Your task to perform on an android device: turn notification dots on Image 0: 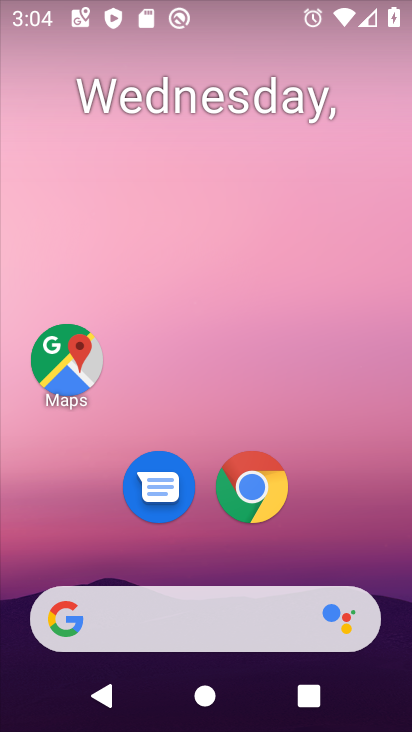
Step 0: drag from (350, 556) to (360, 277)
Your task to perform on an android device: turn notification dots on Image 1: 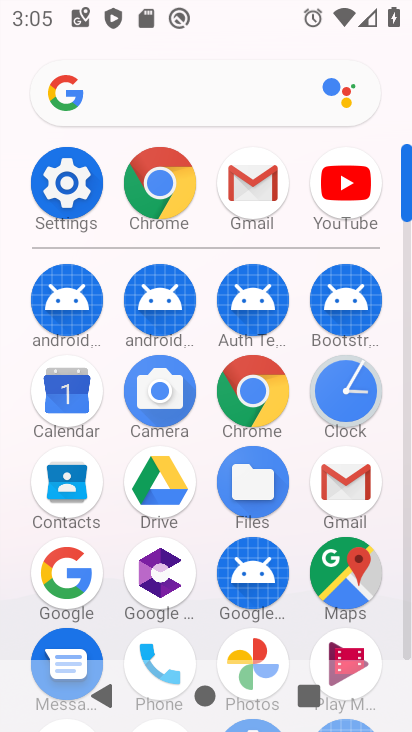
Step 1: click (80, 205)
Your task to perform on an android device: turn notification dots on Image 2: 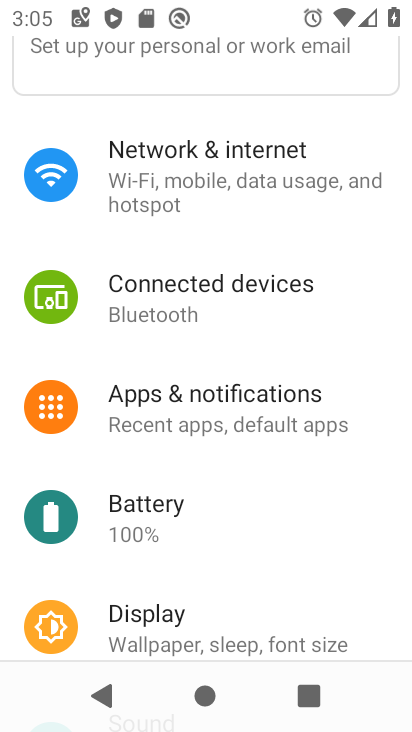
Step 2: drag from (352, 284) to (366, 499)
Your task to perform on an android device: turn notification dots on Image 3: 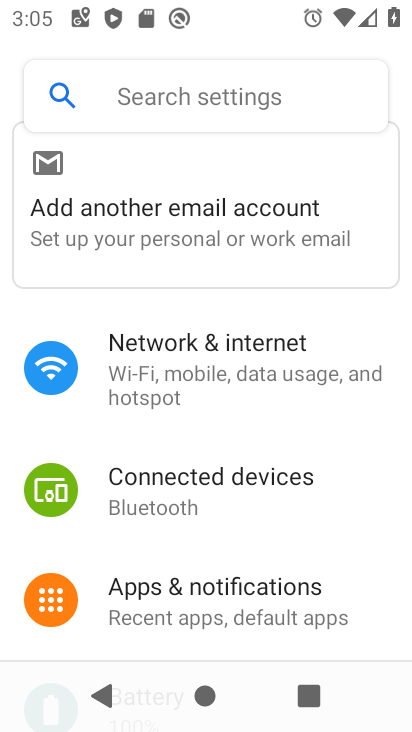
Step 3: click (310, 589)
Your task to perform on an android device: turn notification dots on Image 4: 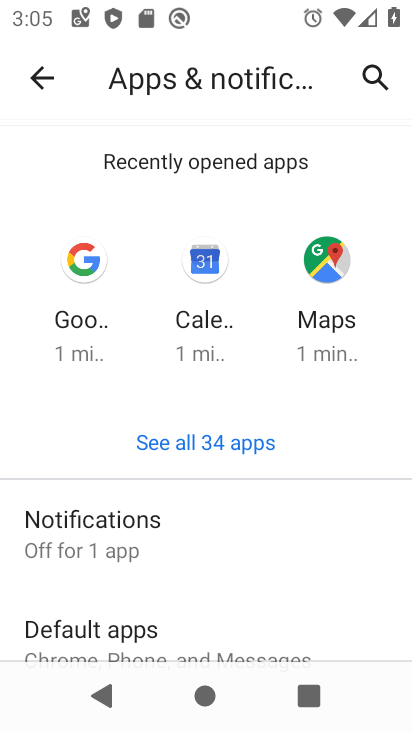
Step 4: click (169, 545)
Your task to perform on an android device: turn notification dots on Image 5: 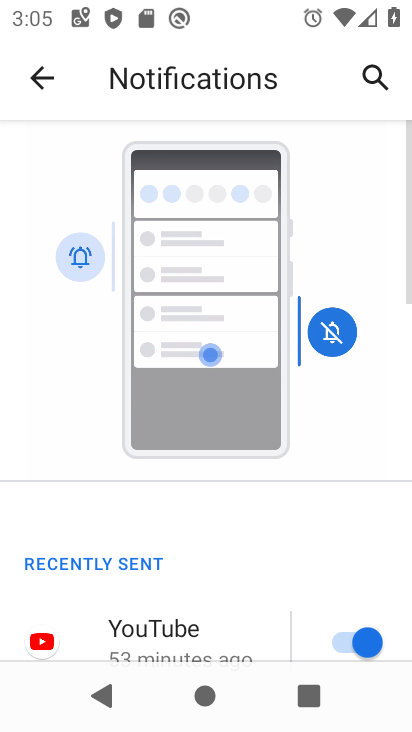
Step 5: drag from (277, 550) to (304, 480)
Your task to perform on an android device: turn notification dots on Image 6: 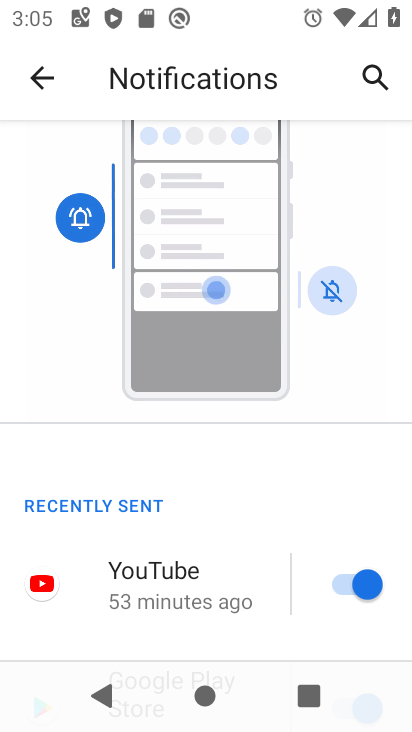
Step 6: drag from (314, 529) to (312, 434)
Your task to perform on an android device: turn notification dots on Image 7: 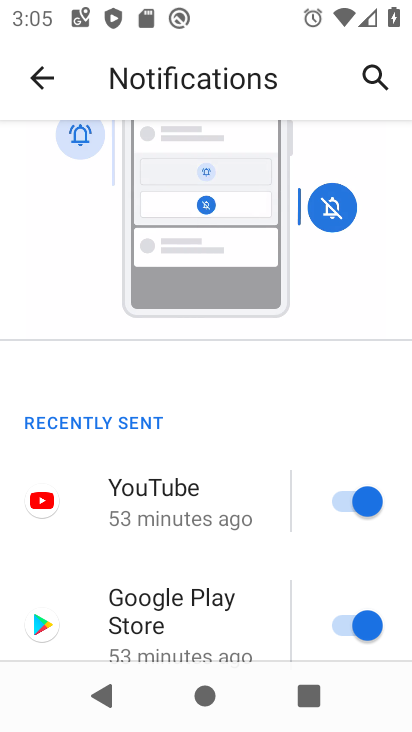
Step 7: drag from (287, 546) to (302, 426)
Your task to perform on an android device: turn notification dots on Image 8: 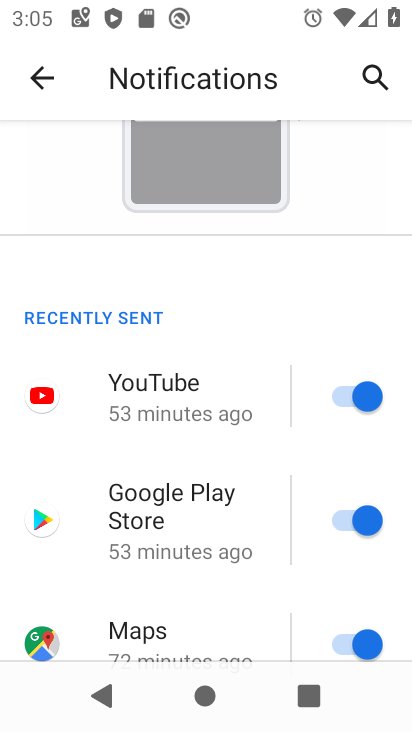
Step 8: drag from (294, 550) to (303, 450)
Your task to perform on an android device: turn notification dots on Image 9: 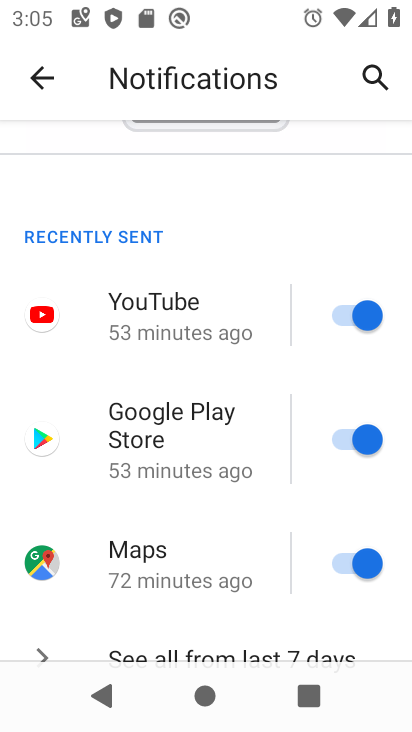
Step 9: drag from (311, 525) to (298, 419)
Your task to perform on an android device: turn notification dots on Image 10: 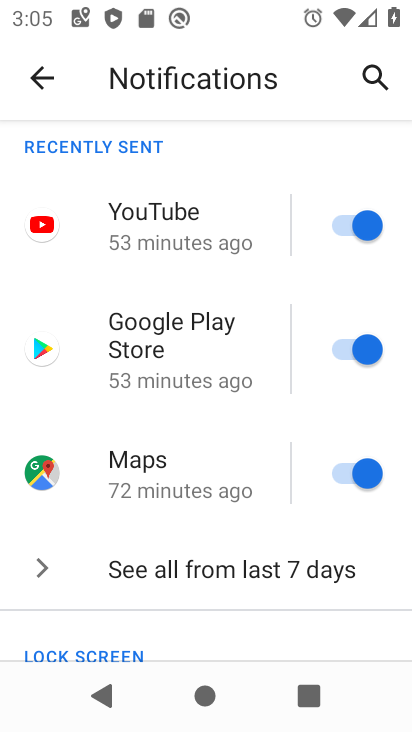
Step 10: drag from (308, 497) to (307, 378)
Your task to perform on an android device: turn notification dots on Image 11: 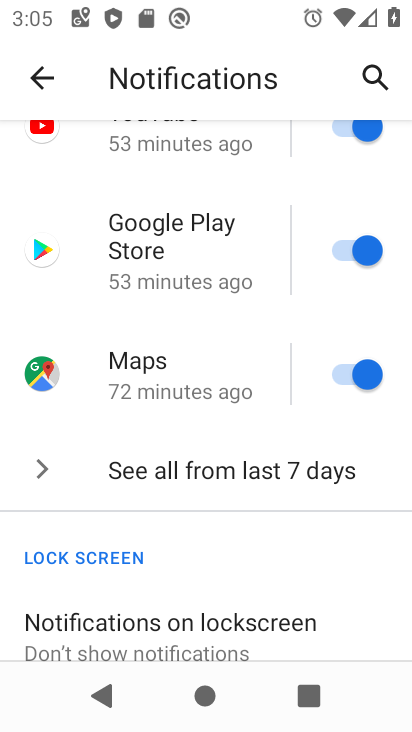
Step 11: drag from (250, 534) to (239, 409)
Your task to perform on an android device: turn notification dots on Image 12: 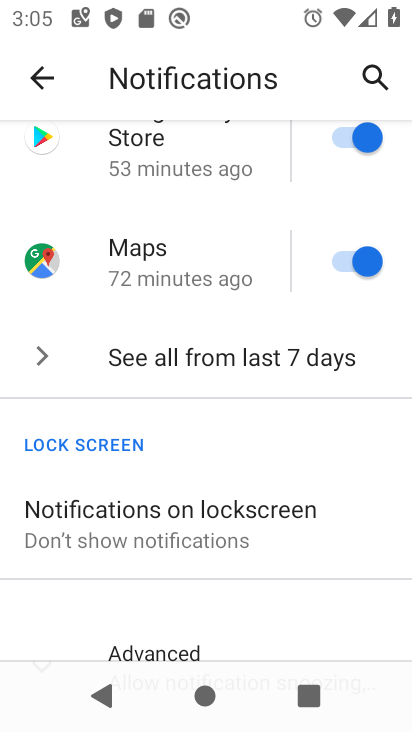
Step 12: drag from (254, 571) to (264, 405)
Your task to perform on an android device: turn notification dots on Image 13: 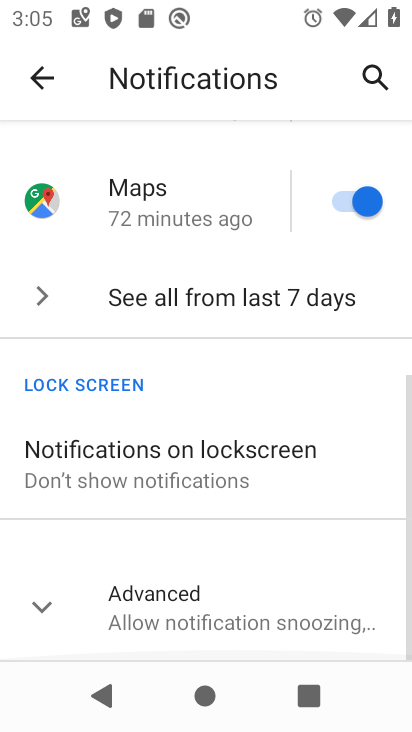
Step 13: click (254, 608)
Your task to perform on an android device: turn notification dots on Image 14: 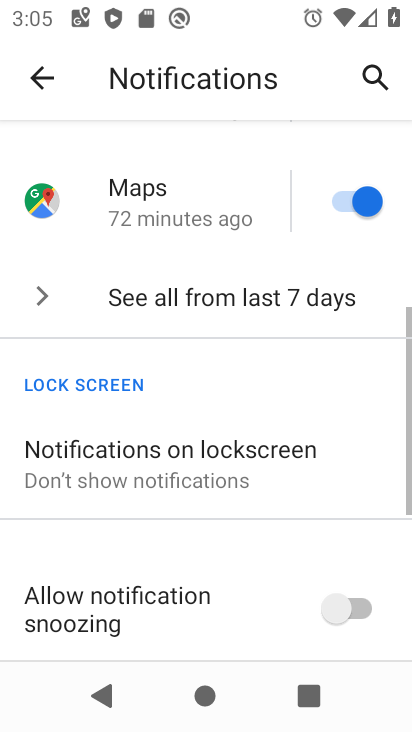
Step 14: drag from (258, 597) to (274, 310)
Your task to perform on an android device: turn notification dots on Image 15: 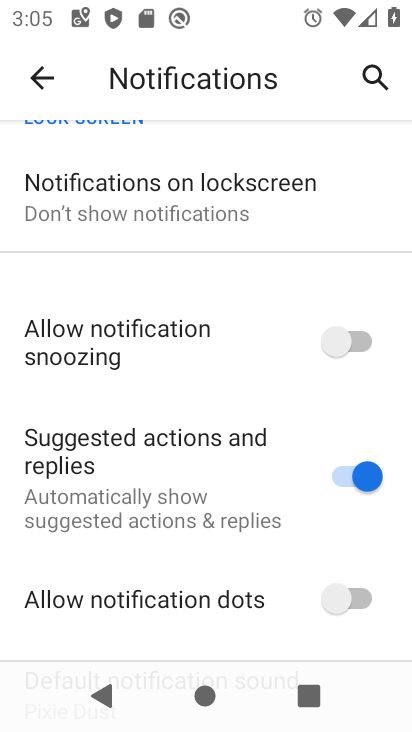
Step 15: click (365, 609)
Your task to perform on an android device: turn notification dots on Image 16: 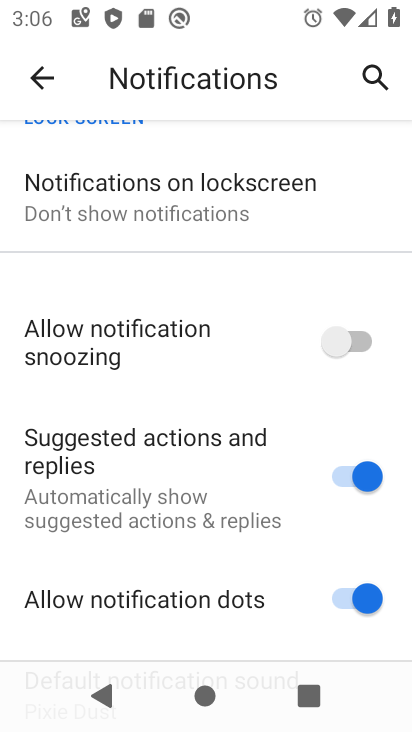
Step 16: task complete